Your task to perform on an android device: Open Chrome and go to the settings page Image 0: 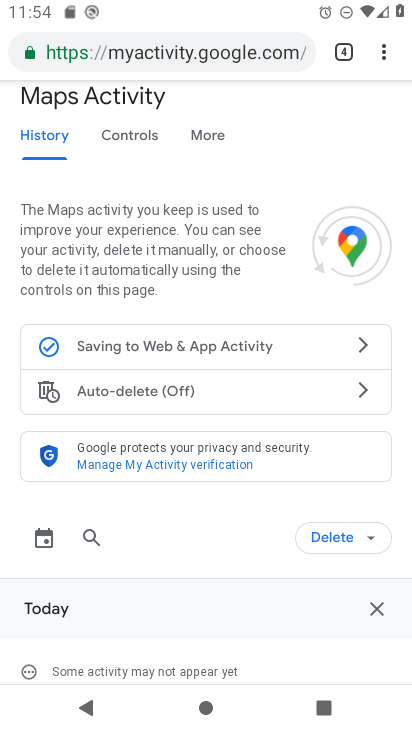
Step 0: press home button
Your task to perform on an android device: Open Chrome and go to the settings page Image 1: 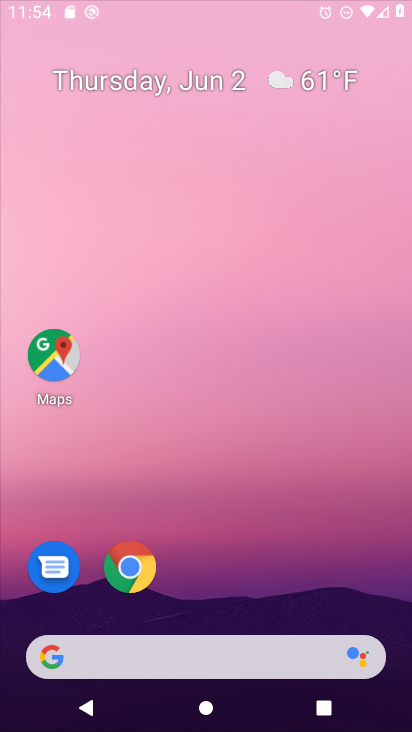
Step 1: click (127, 560)
Your task to perform on an android device: Open Chrome and go to the settings page Image 2: 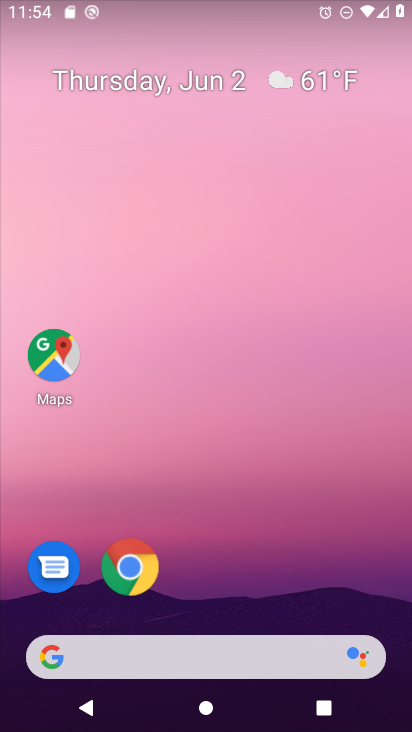
Step 2: click (132, 569)
Your task to perform on an android device: Open Chrome and go to the settings page Image 3: 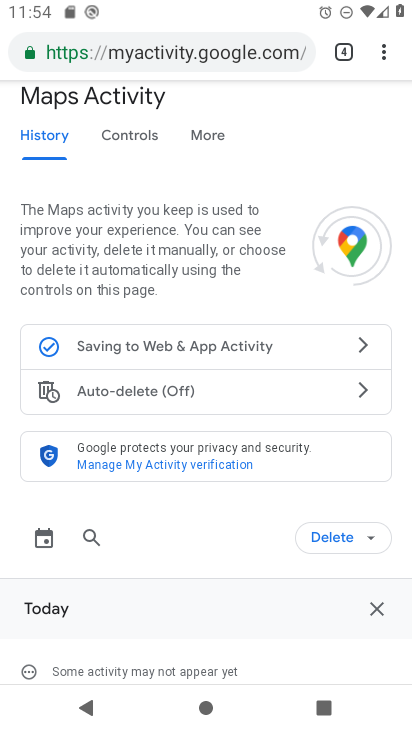
Step 3: task complete